Your task to perform on an android device: Search for a runner rug on Crate & Barrel. Image 0: 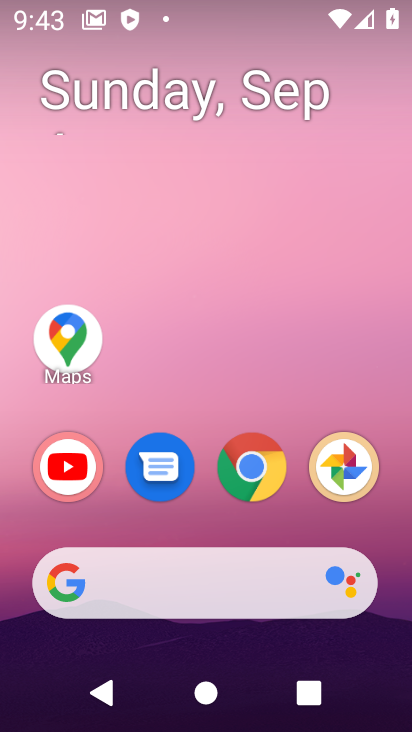
Step 0: click (264, 475)
Your task to perform on an android device: Search for a runner rug on Crate & Barrel. Image 1: 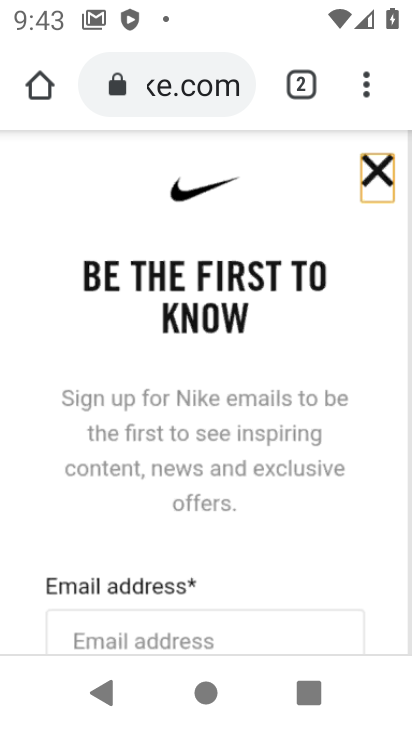
Step 1: click (202, 83)
Your task to perform on an android device: Search for a runner rug on Crate & Barrel. Image 2: 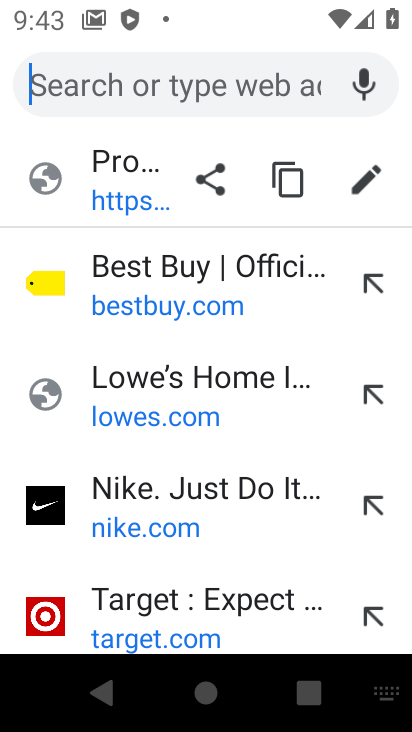
Step 2: type "crate & barrel"
Your task to perform on an android device: Search for a runner rug on Crate & Barrel. Image 3: 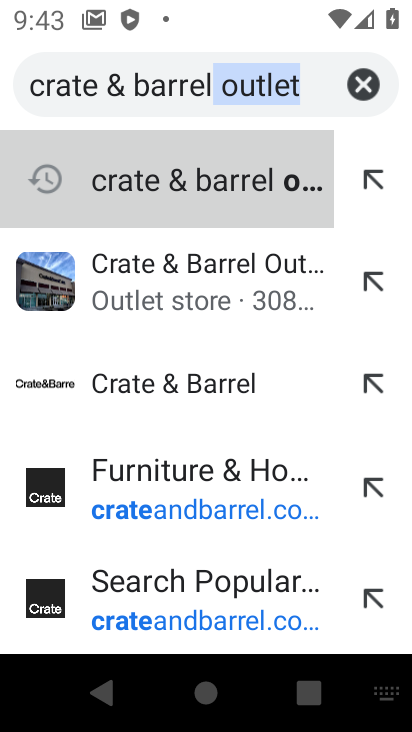
Step 3: type ""
Your task to perform on an android device: Search for a runner rug on Crate & Barrel. Image 4: 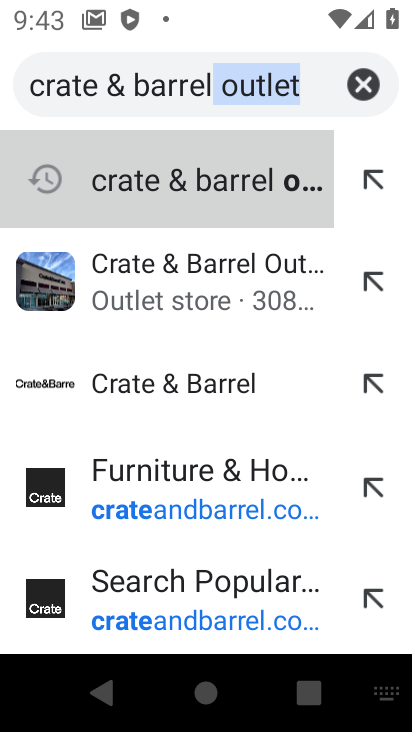
Step 4: click (163, 299)
Your task to perform on an android device: Search for a runner rug on Crate & Barrel. Image 5: 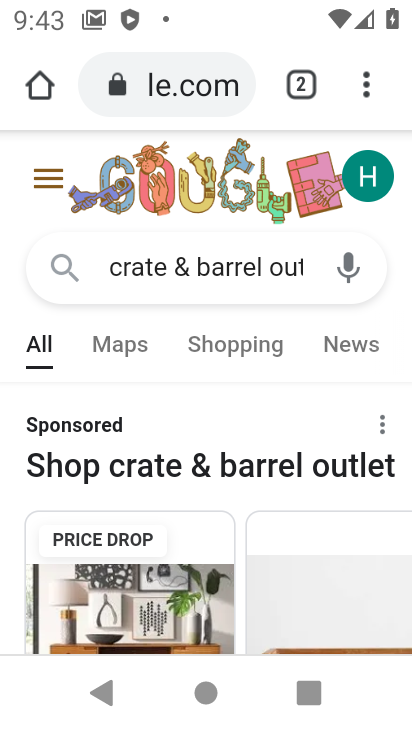
Step 5: drag from (293, 550) to (287, 226)
Your task to perform on an android device: Search for a runner rug on Crate & Barrel. Image 6: 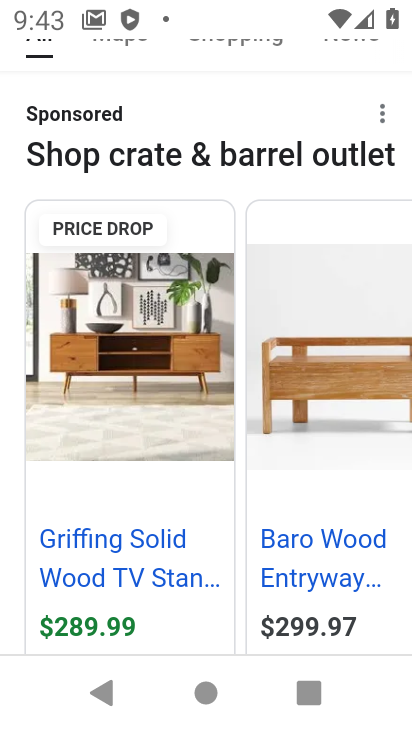
Step 6: drag from (354, 554) to (327, 151)
Your task to perform on an android device: Search for a runner rug on Crate & Barrel. Image 7: 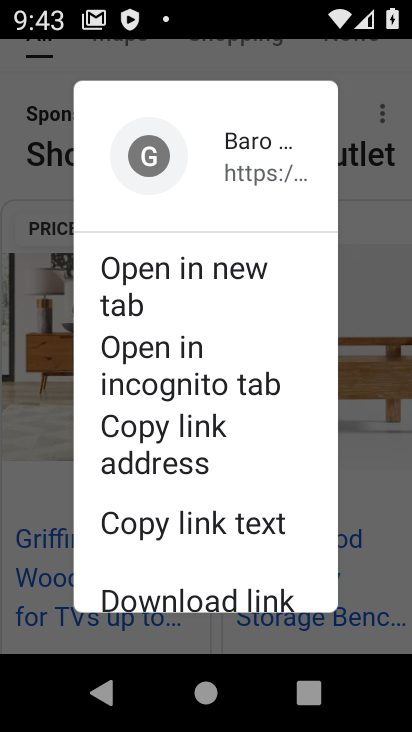
Step 7: drag from (385, 477) to (400, 188)
Your task to perform on an android device: Search for a runner rug on Crate & Barrel. Image 8: 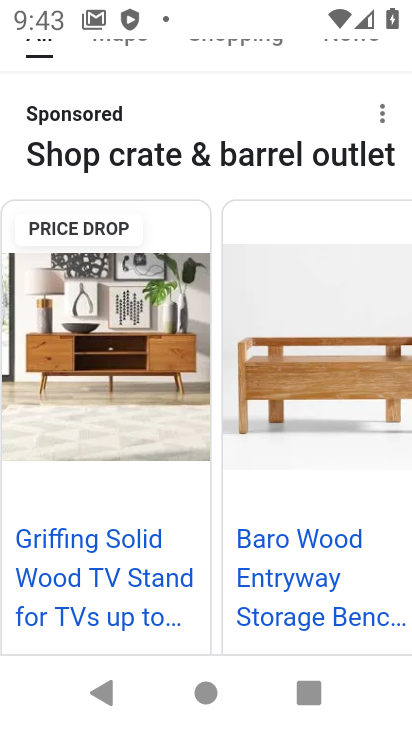
Step 8: drag from (351, 533) to (377, 111)
Your task to perform on an android device: Search for a runner rug on Crate & Barrel. Image 9: 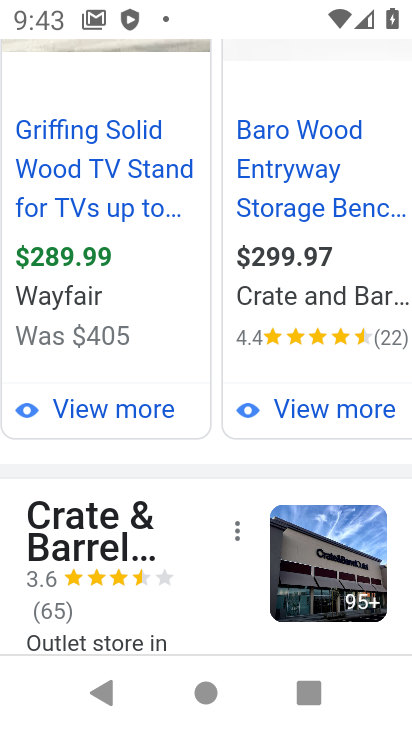
Step 9: click (45, 527)
Your task to perform on an android device: Search for a runner rug on Crate & Barrel. Image 10: 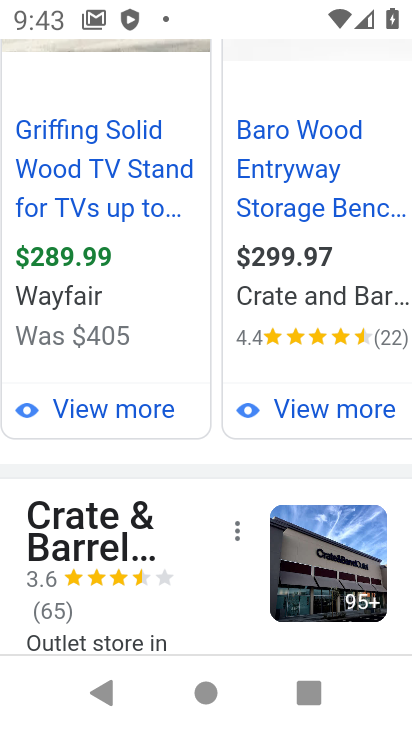
Step 10: click (69, 509)
Your task to perform on an android device: Search for a runner rug on Crate & Barrel. Image 11: 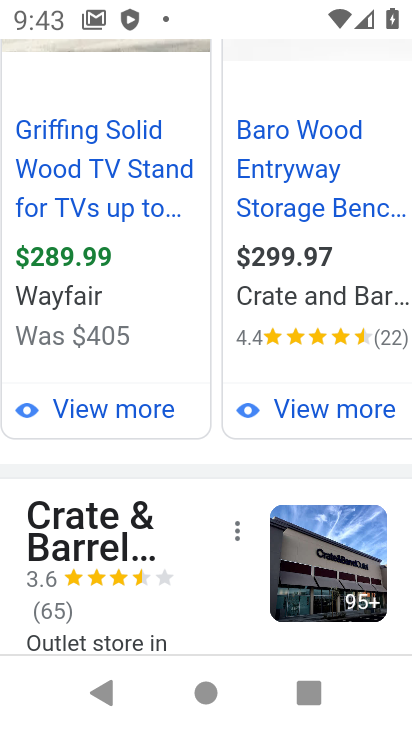
Step 11: drag from (254, 549) to (266, 97)
Your task to perform on an android device: Search for a runner rug on Crate & Barrel. Image 12: 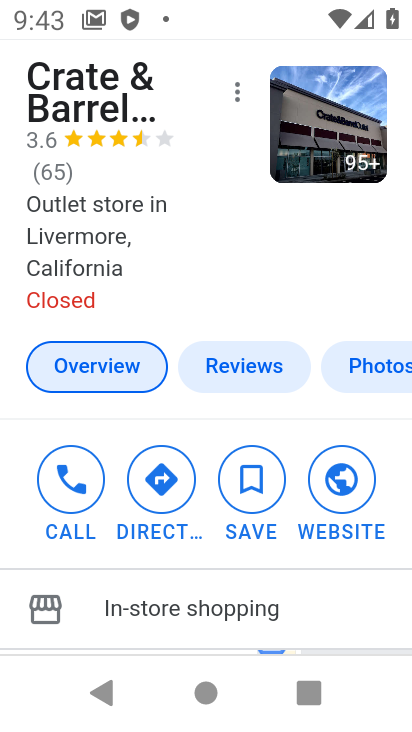
Step 12: click (91, 69)
Your task to perform on an android device: Search for a runner rug on Crate & Barrel. Image 13: 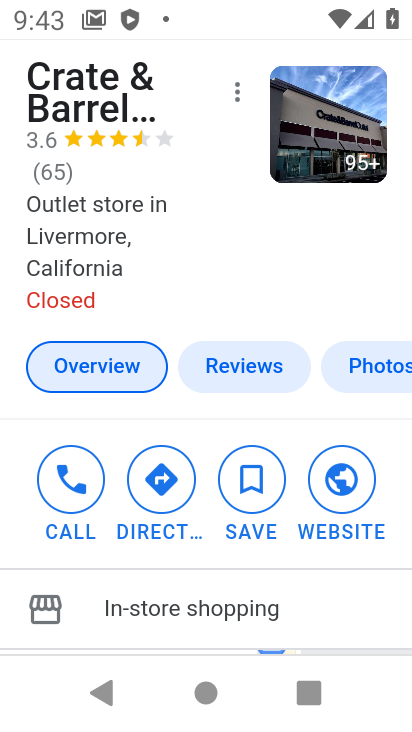
Step 13: click (59, 75)
Your task to perform on an android device: Search for a runner rug on Crate & Barrel. Image 14: 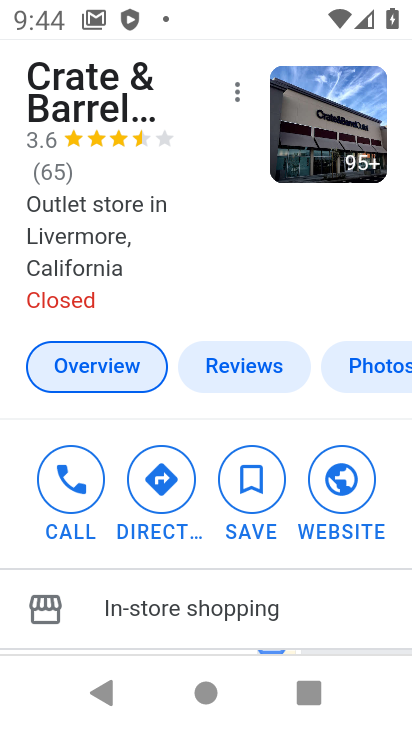
Step 14: press back button
Your task to perform on an android device: Search for a runner rug on Crate & Barrel. Image 15: 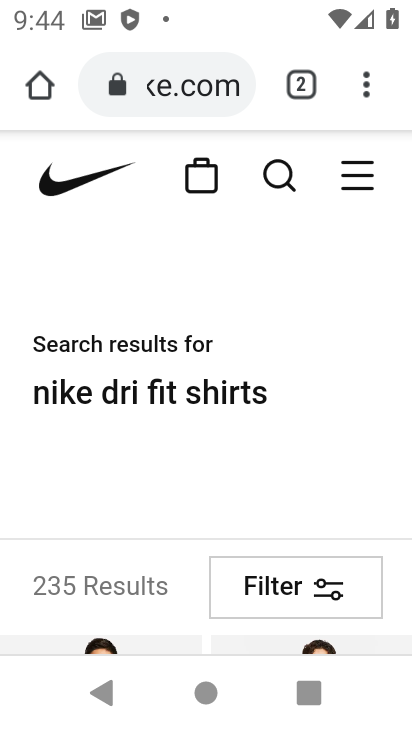
Step 15: click (196, 84)
Your task to perform on an android device: Search for a runner rug on Crate & Barrel. Image 16: 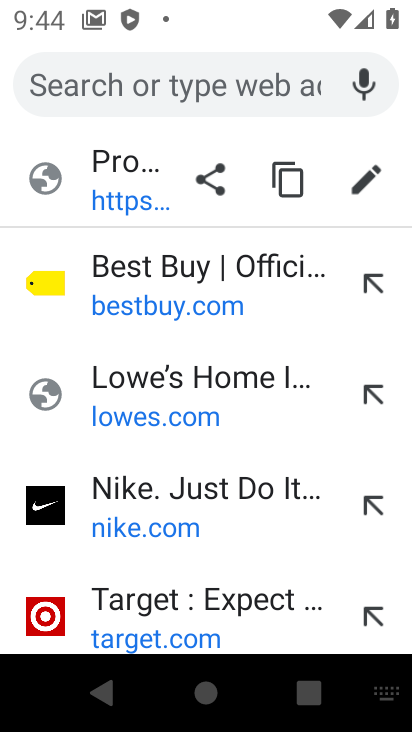
Step 16: type "crate&barrel"
Your task to perform on an android device: Search for a runner rug on Crate & Barrel. Image 17: 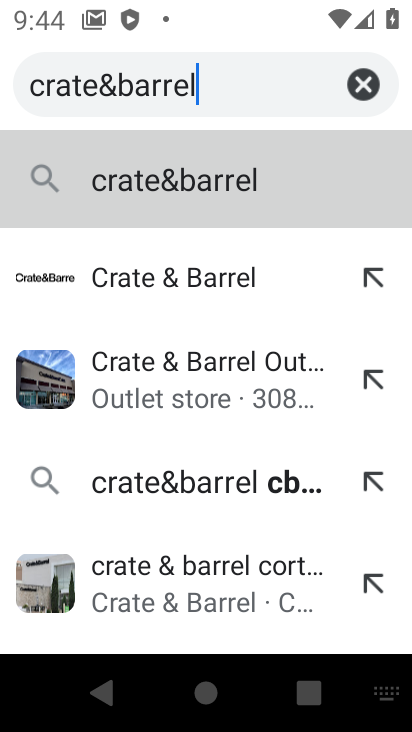
Step 17: click (179, 383)
Your task to perform on an android device: Search for a runner rug on Crate & Barrel. Image 18: 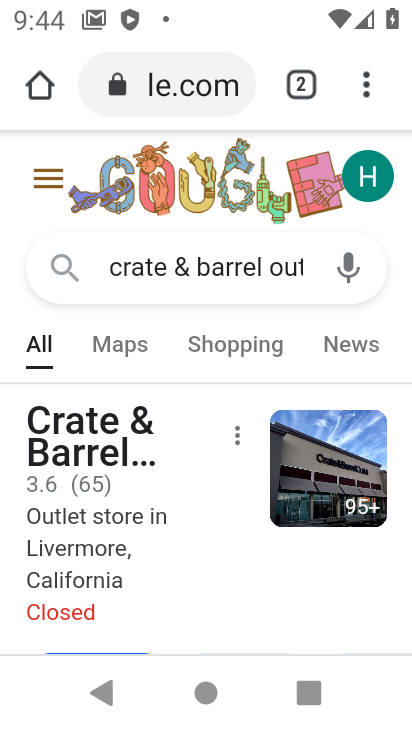
Step 18: click (63, 426)
Your task to perform on an android device: Search for a runner rug on Crate & Barrel. Image 19: 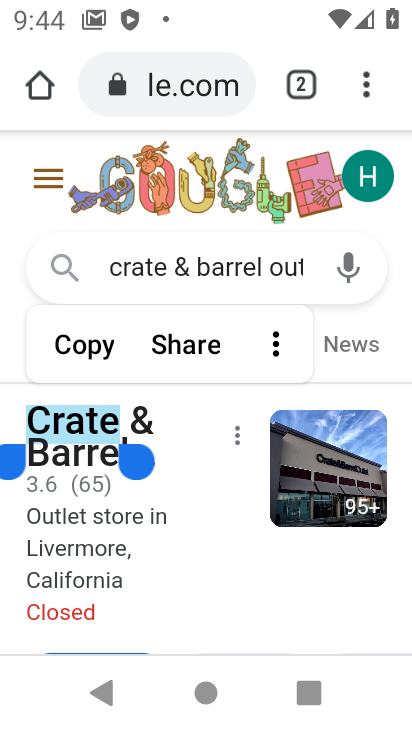
Step 19: click (192, 252)
Your task to perform on an android device: Search for a runner rug on Crate & Barrel. Image 20: 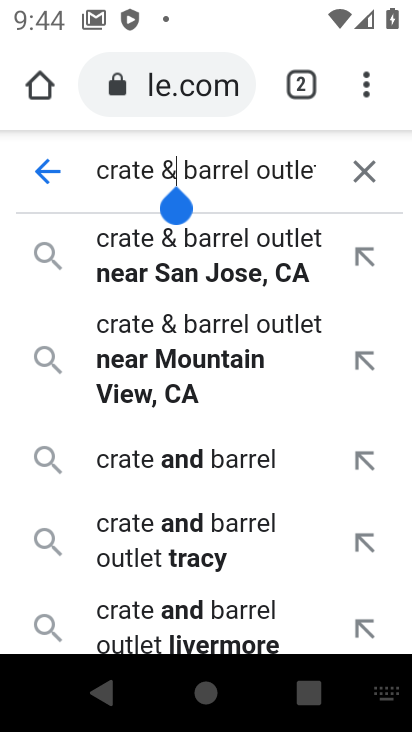
Step 20: click (219, 272)
Your task to perform on an android device: Search for a runner rug on Crate & Barrel. Image 21: 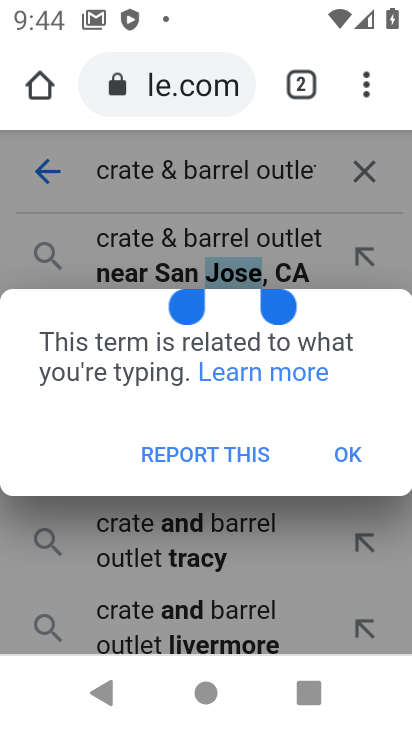
Step 21: click (358, 452)
Your task to perform on an android device: Search for a runner rug on Crate & Barrel. Image 22: 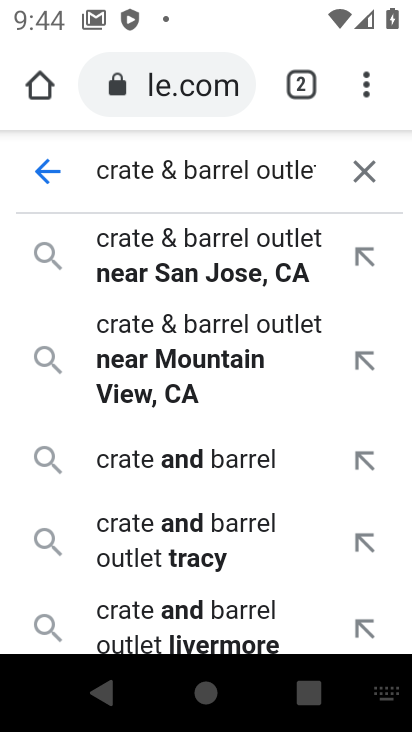
Step 22: click (175, 260)
Your task to perform on an android device: Search for a runner rug on Crate & Barrel. Image 23: 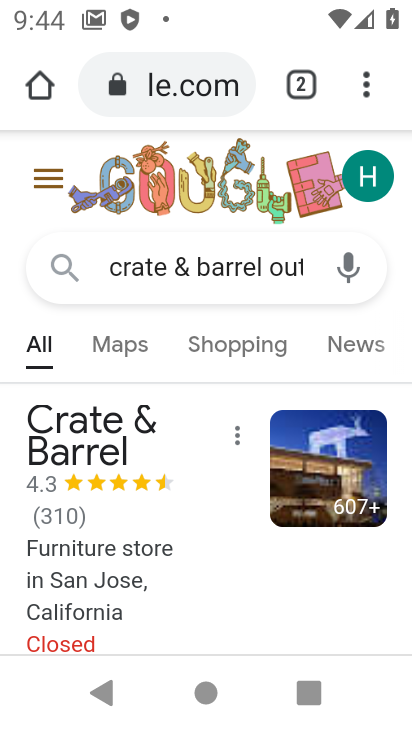
Step 23: drag from (132, 447) to (117, 301)
Your task to perform on an android device: Search for a runner rug on Crate & Barrel. Image 24: 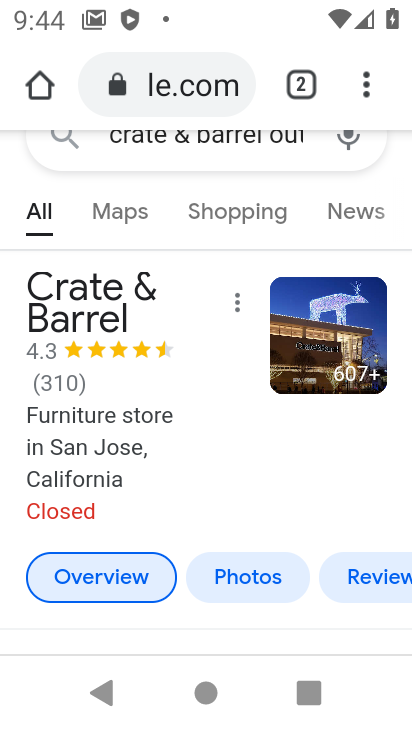
Step 24: drag from (144, 454) to (92, 131)
Your task to perform on an android device: Search for a runner rug on Crate & Barrel. Image 25: 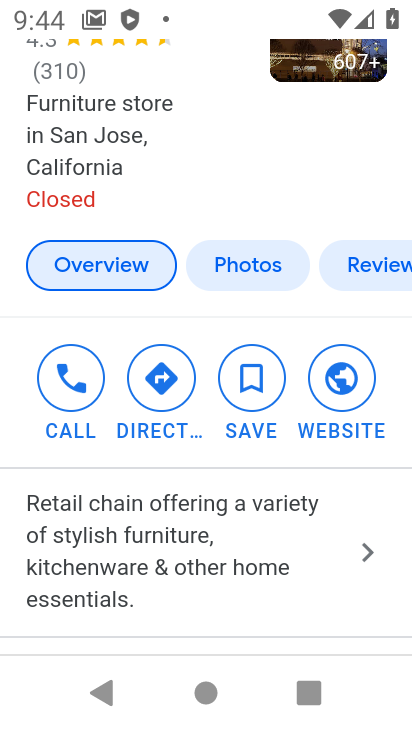
Step 25: drag from (125, 602) to (160, 129)
Your task to perform on an android device: Search for a runner rug on Crate & Barrel. Image 26: 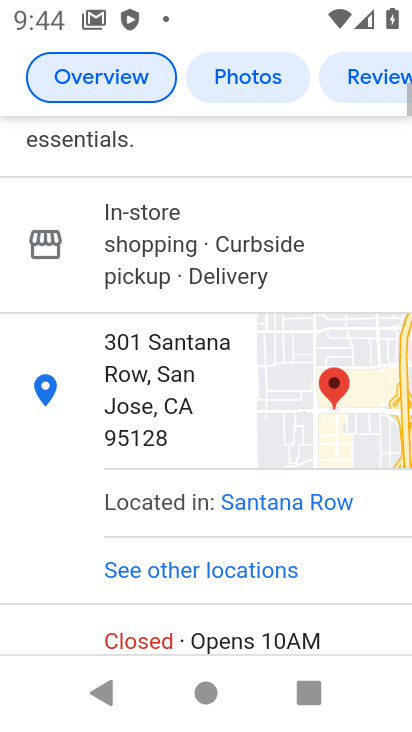
Step 26: drag from (223, 597) to (206, 226)
Your task to perform on an android device: Search for a runner rug on Crate & Barrel. Image 27: 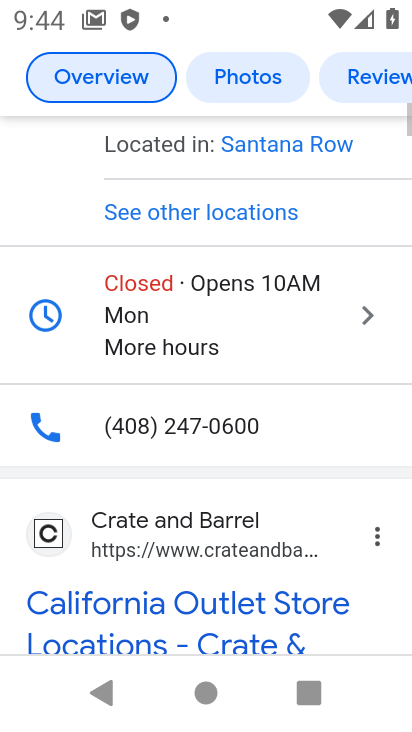
Step 27: drag from (214, 612) to (230, 230)
Your task to perform on an android device: Search for a runner rug on Crate & Barrel. Image 28: 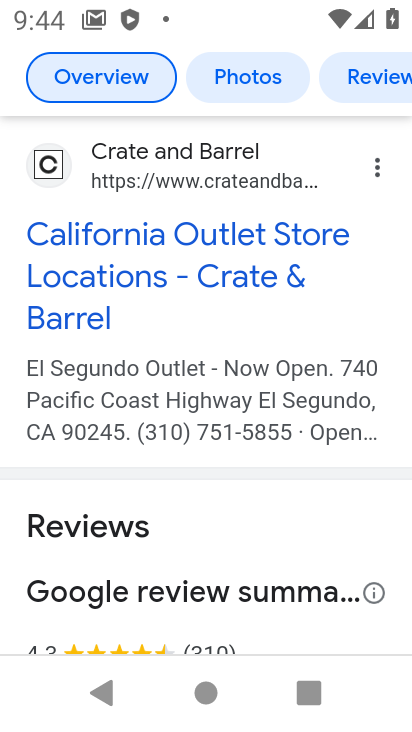
Step 28: click (122, 238)
Your task to perform on an android device: Search for a runner rug on Crate & Barrel. Image 29: 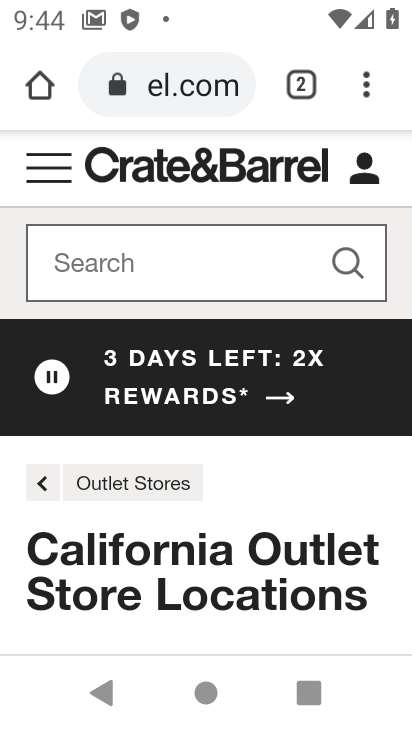
Step 29: click (155, 248)
Your task to perform on an android device: Search for a runner rug on Crate & Barrel. Image 30: 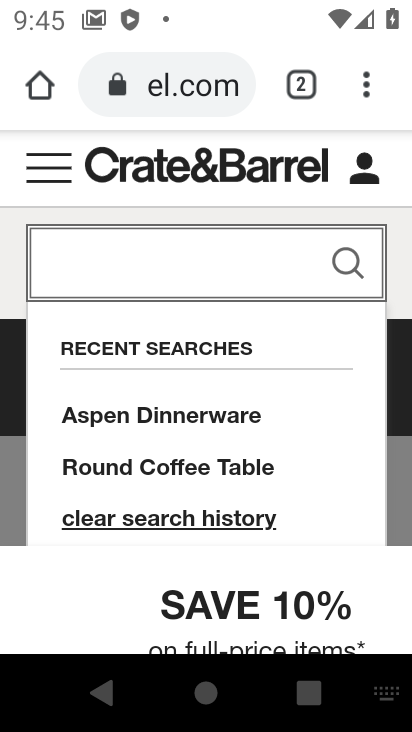
Step 30: type "runner rug"
Your task to perform on an android device: Search for a runner rug on Crate & Barrel. Image 31: 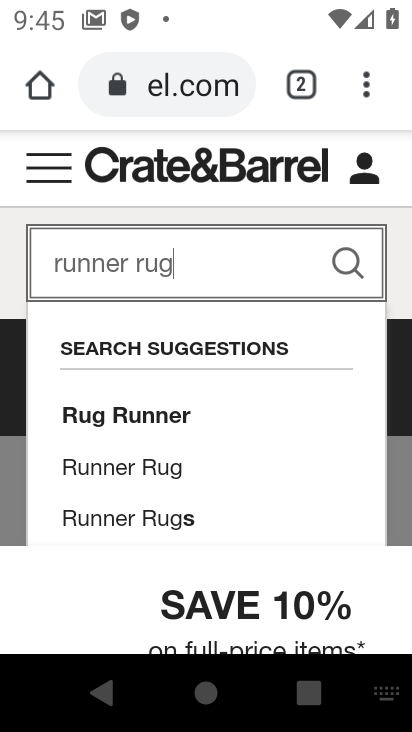
Step 31: click (66, 415)
Your task to perform on an android device: Search for a runner rug on Crate & Barrel. Image 32: 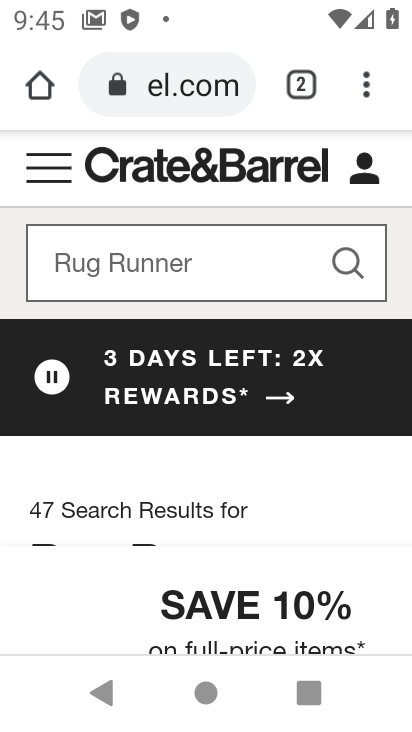
Step 32: drag from (290, 512) to (332, 223)
Your task to perform on an android device: Search for a runner rug on Crate & Barrel. Image 33: 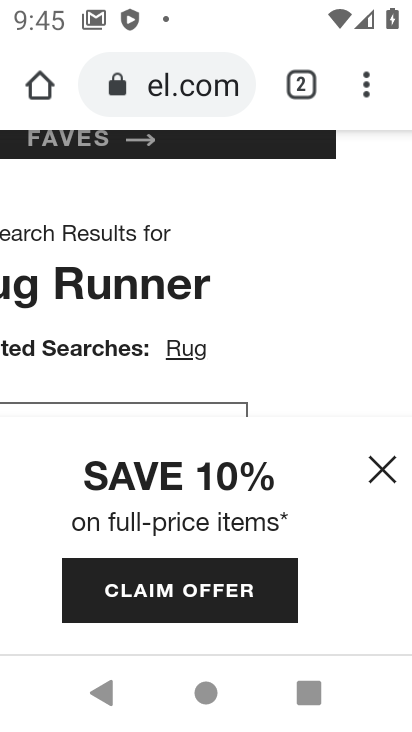
Step 33: click (382, 461)
Your task to perform on an android device: Search for a runner rug on Crate & Barrel. Image 34: 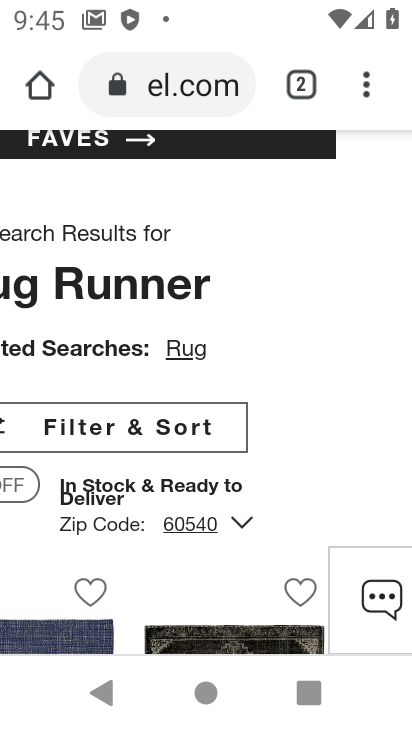
Step 34: drag from (330, 454) to (289, 160)
Your task to perform on an android device: Search for a runner rug on Crate & Barrel. Image 35: 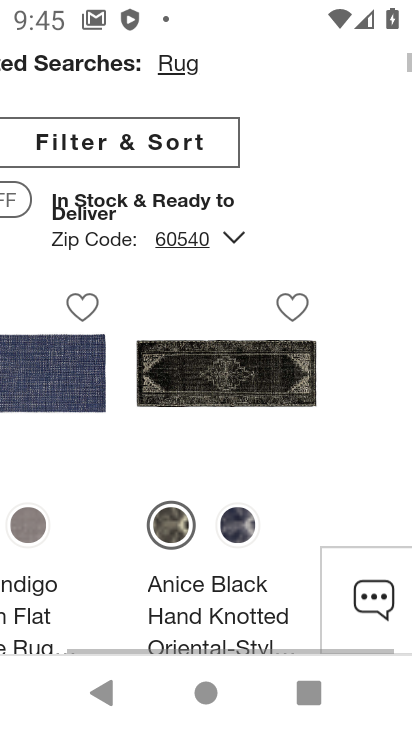
Step 35: drag from (172, 363) to (237, 148)
Your task to perform on an android device: Search for a runner rug on Crate & Barrel. Image 36: 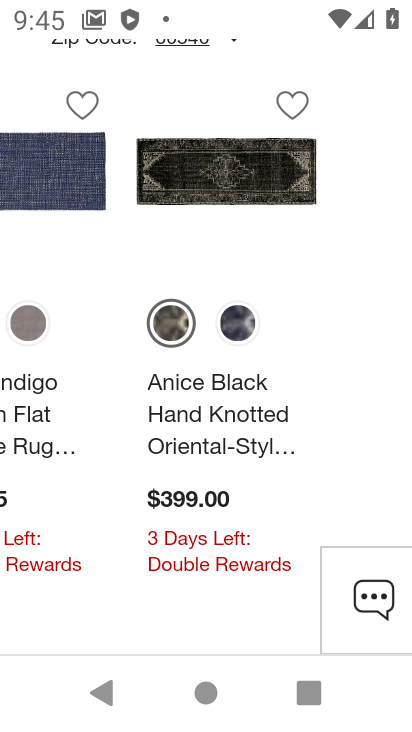
Step 36: drag from (311, 448) to (371, 124)
Your task to perform on an android device: Search for a runner rug on Crate & Barrel. Image 37: 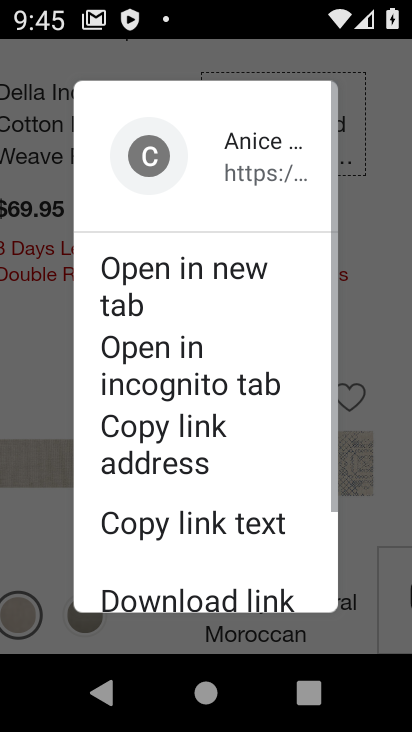
Step 37: click (392, 317)
Your task to perform on an android device: Search for a runner rug on Crate & Barrel. Image 38: 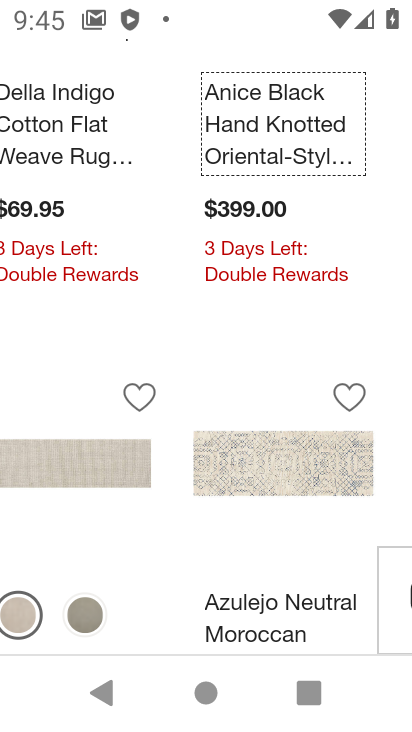
Step 38: drag from (213, 495) to (212, 157)
Your task to perform on an android device: Search for a runner rug on Crate & Barrel. Image 39: 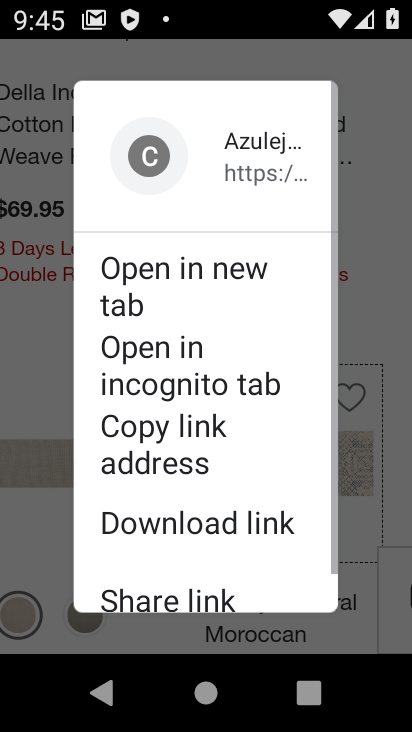
Step 39: click (388, 305)
Your task to perform on an android device: Search for a runner rug on Crate & Barrel. Image 40: 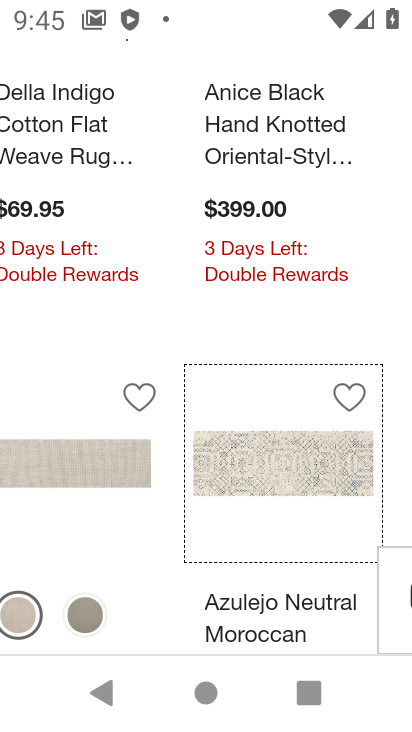
Step 40: task complete